Your task to perform on an android device: open a new tab in the chrome app Image 0: 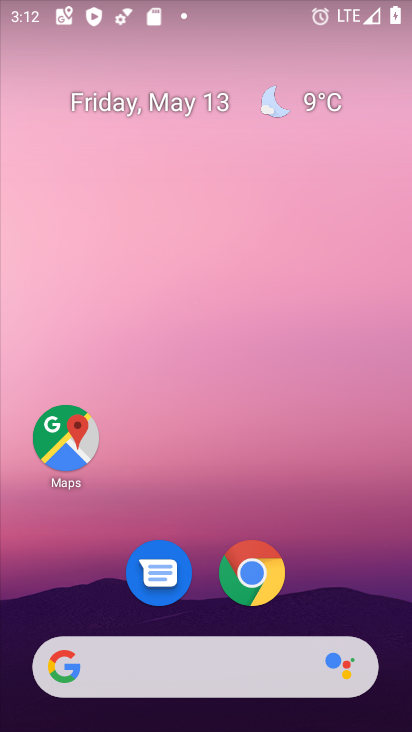
Step 0: click (255, 570)
Your task to perform on an android device: open a new tab in the chrome app Image 1: 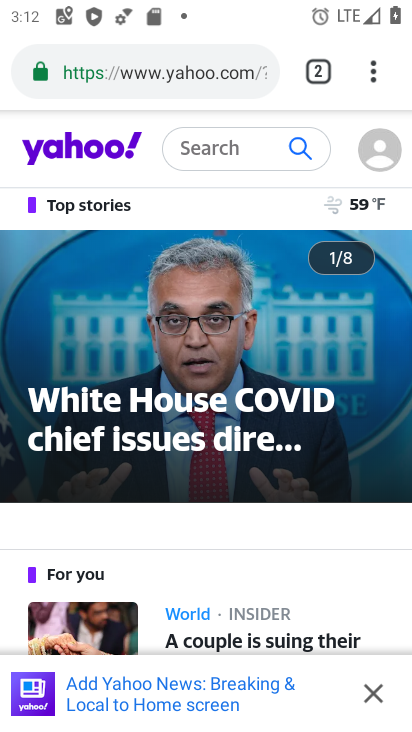
Step 1: click (371, 72)
Your task to perform on an android device: open a new tab in the chrome app Image 2: 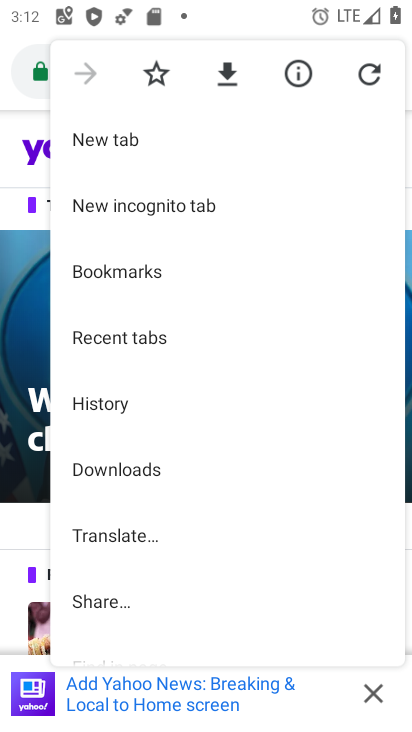
Step 2: click (118, 138)
Your task to perform on an android device: open a new tab in the chrome app Image 3: 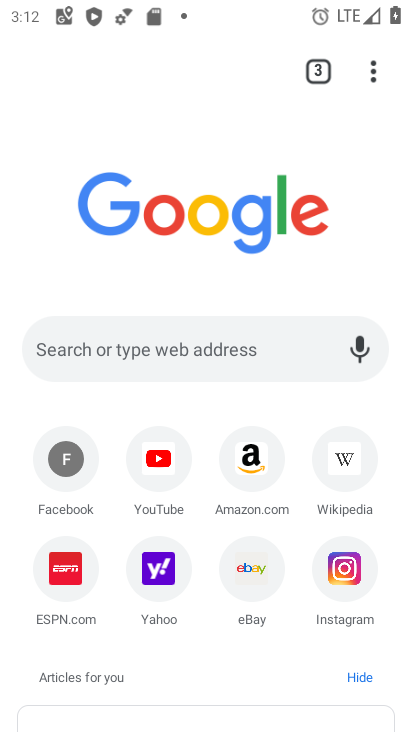
Step 3: task complete